Your task to perform on an android device: change the clock display to analog Image 0: 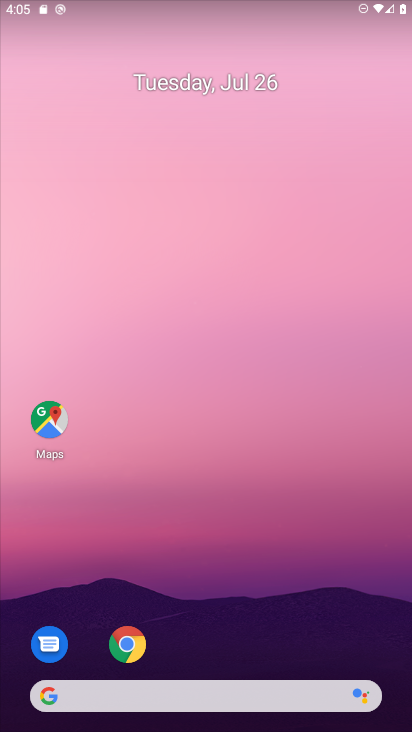
Step 0: drag from (377, 655) to (330, 127)
Your task to perform on an android device: change the clock display to analog Image 1: 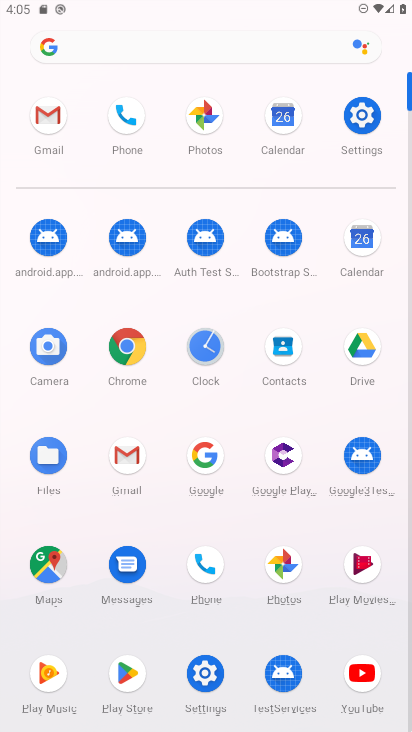
Step 1: click (203, 345)
Your task to perform on an android device: change the clock display to analog Image 2: 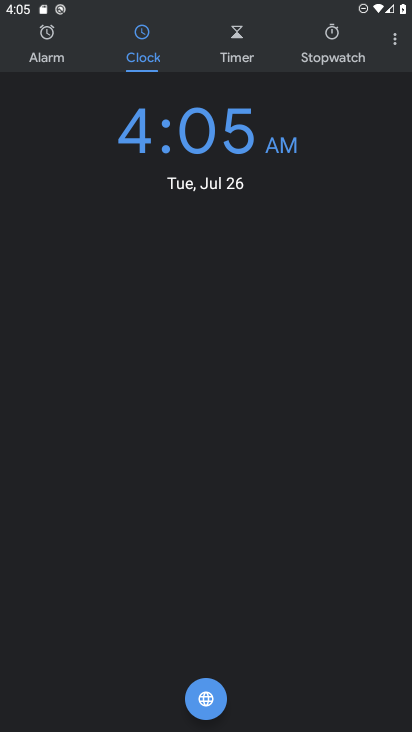
Step 2: click (394, 44)
Your task to perform on an android device: change the clock display to analog Image 3: 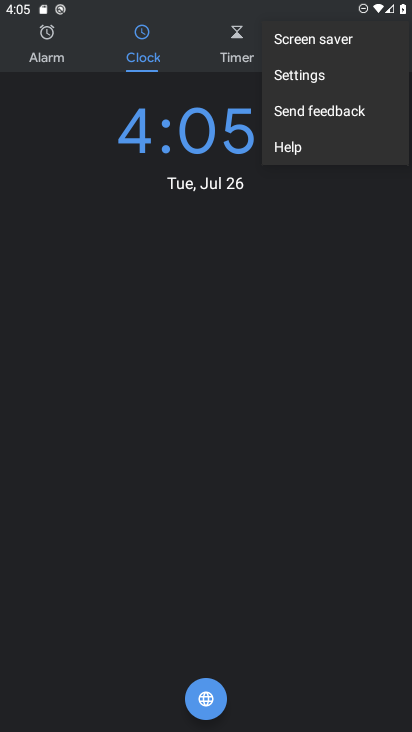
Step 3: click (287, 79)
Your task to perform on an android device: change the clock display to analog Image 4: 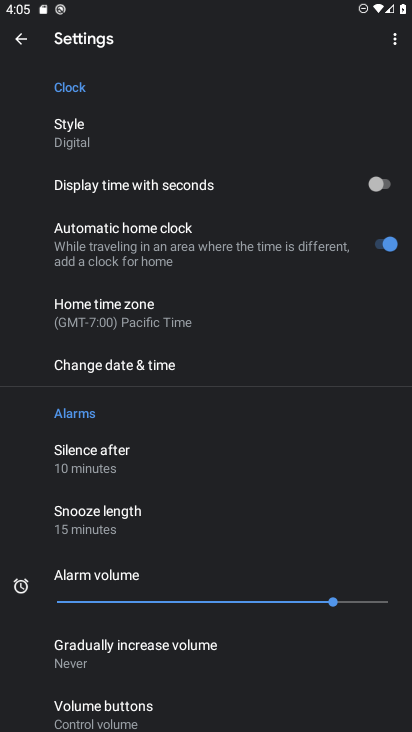
Step 4: click (78, 136)
Your task to perform on an android device: change the clock display to analog Image 5: 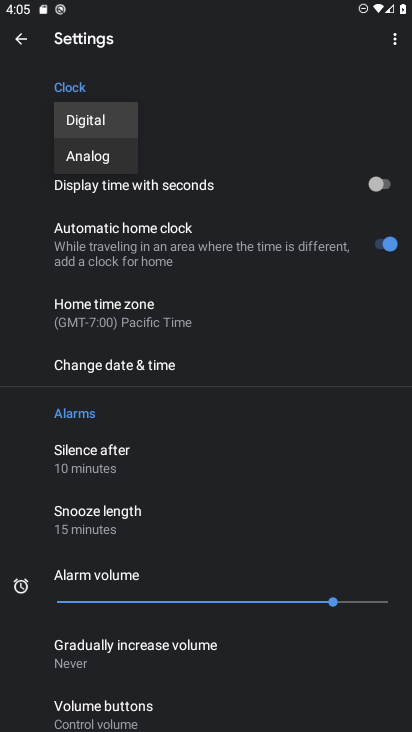
Step 5: click (96, 160)
Your task to perform on an android device: change the clock display to analog Image 6: 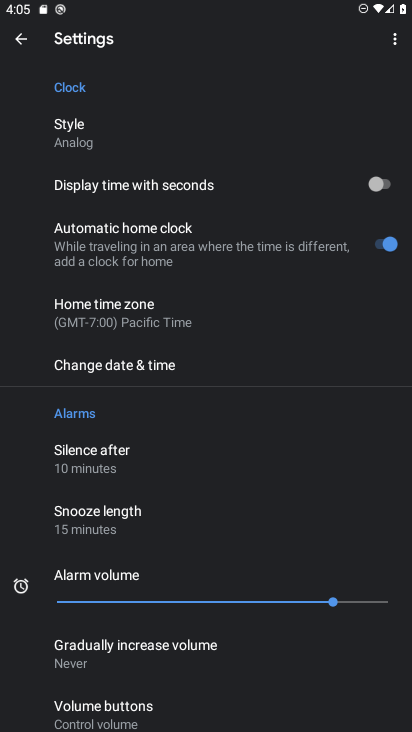
Step 6: task complete